Your task to perform on an android device: Open calendar and show me the first week of next month Image 0: 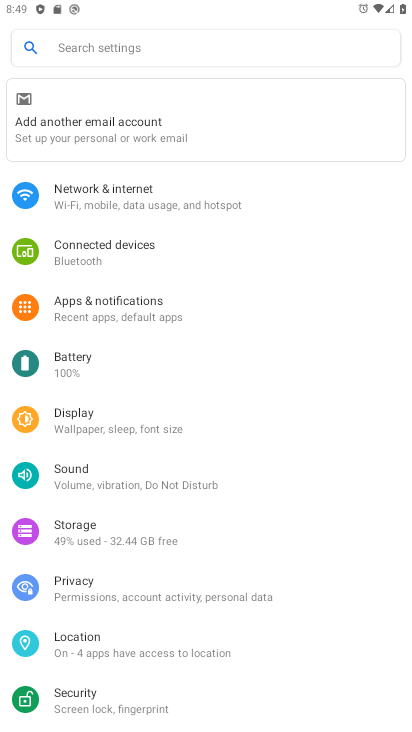
Step 0: press home button
Your task to perform on an android device: Open calendar and show me the first week of next month Image 1: 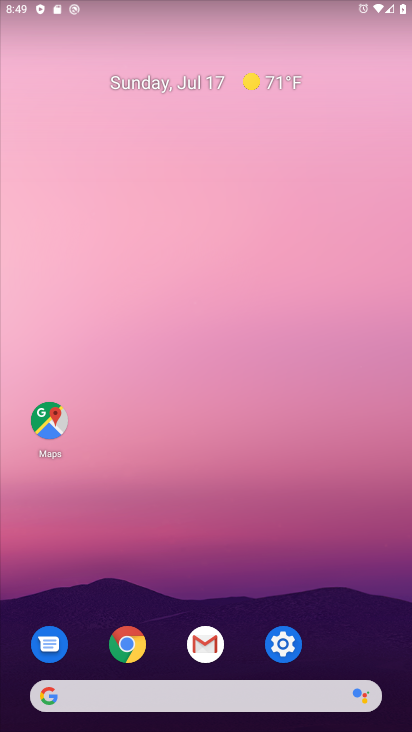
Step 1: drag from (213, 709) to (312, 9)
Your task to perform on an android device: Open calendar and show me the first week of next month Image 2: 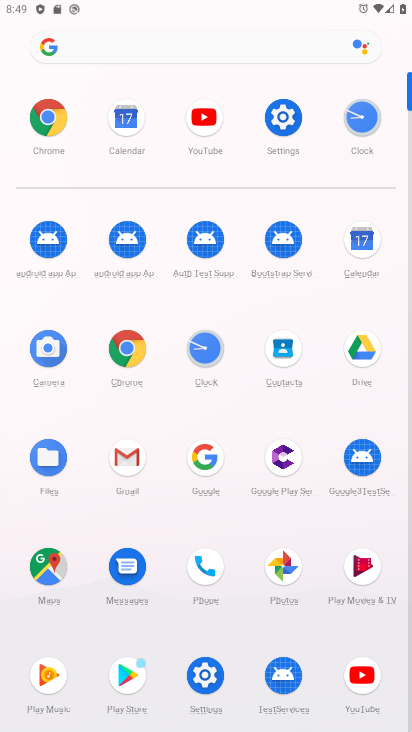
Step 2: click (360, 258)
Your task to perform on an android device: Open calendar and show me the first week of next month Image 3: 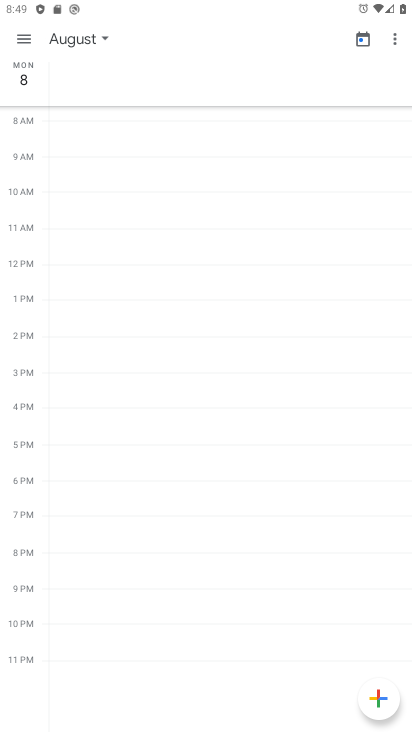
Step 3: click (26, 46)
Your task to perform on an android device: Open calendar and show me the first week of next month Image 4: 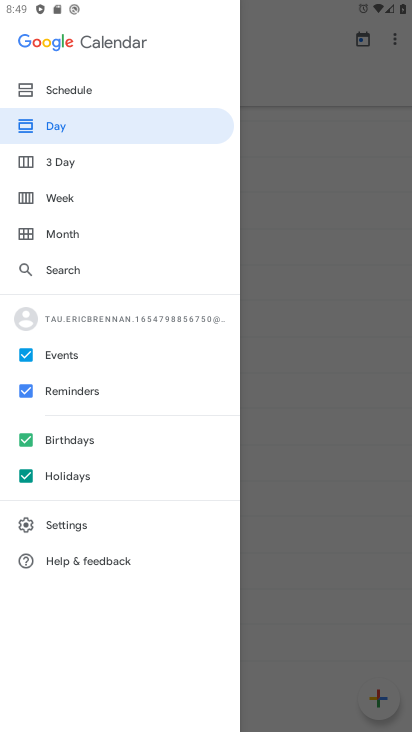
Step 4: click (74, 233)
Your task to perform on an android device: Open calendar and show me the first week of next month Image 5: 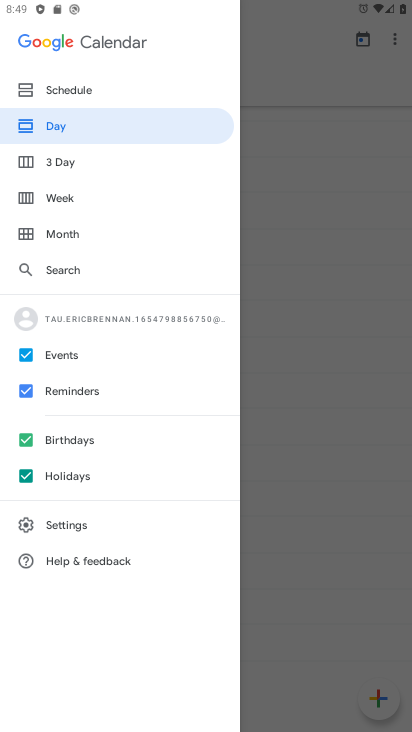
Step 5: click (77, 229)
Your task to perform on an android device: Open calendar and show me the first week of next month Image 6: 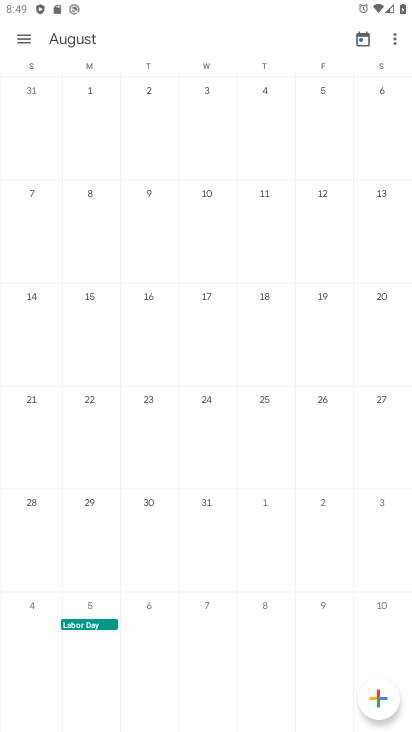
Step 6: click (99, 105)
Your task to perform on an android device: Open calendar and show me the first week of next month Image 7: 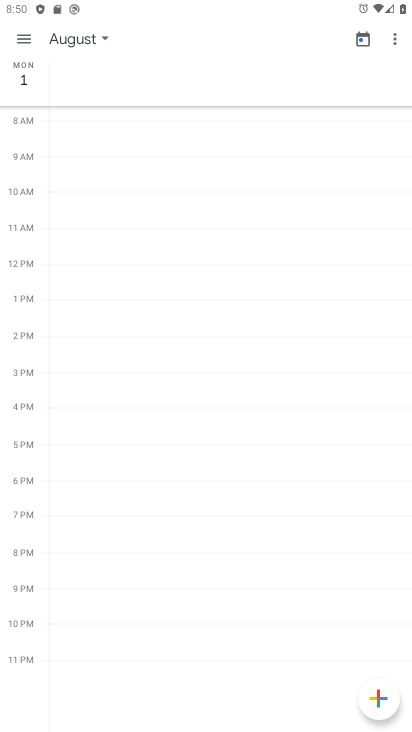
Step 7: task complete